Your task to perform on an android device: change the clock display to show seconds Image 0: 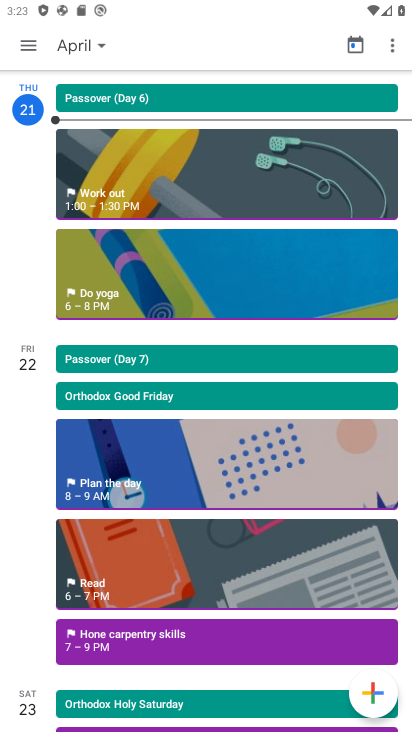
Step 0: press home button
Your task to perform on an android device: change the clock display to show seconds Image 1: 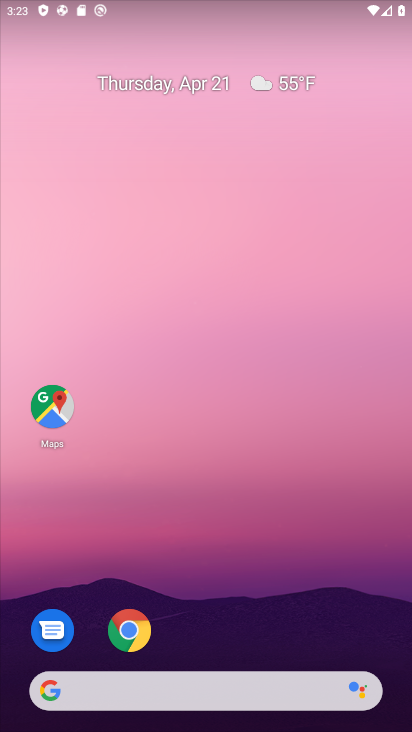
Step 1: drag from (348, 575) to (192, 36)
Your task to perform on an android device: change the clock display to show seconds Image 2: 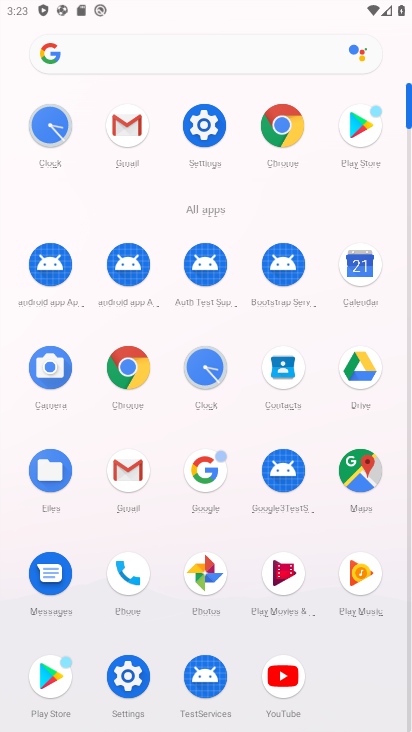
Step 2: click (41, 137)
Your task to perform on an android device: change the clock display to show seconds Image 3: 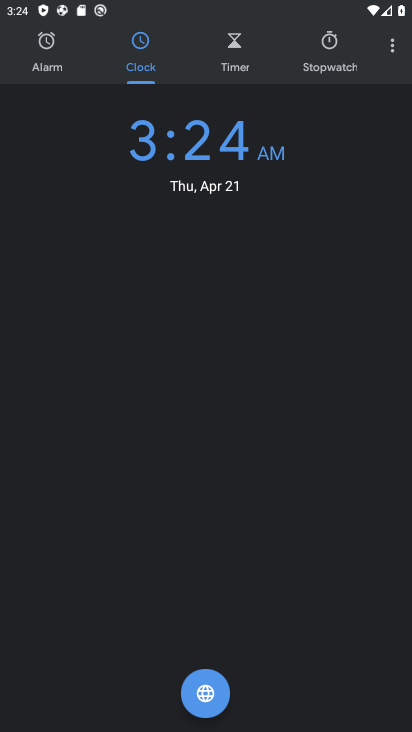
Step 3: click (393, 46)
Your task to perform on an android device: change the clock display to show seconds Image 4: 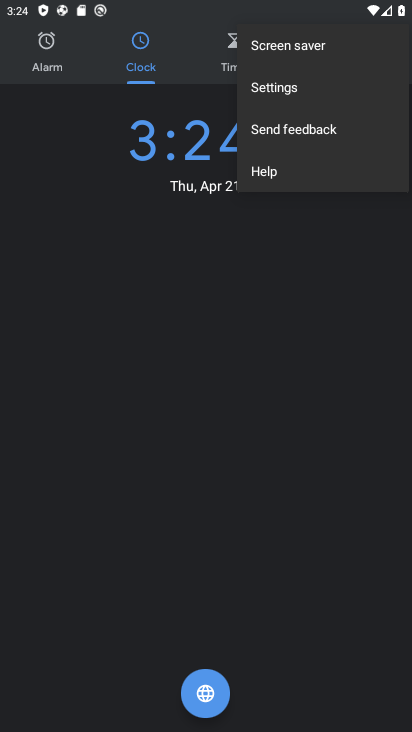
Step 4: click (292, 94)
Your task to perform on an android device: change the clock display to show seconds Image 5: 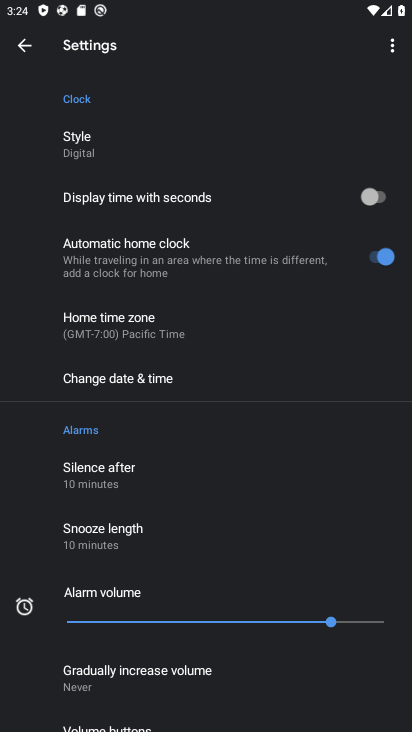
Step 5: click (375, 196)
Your task to perform on an android device: change the clock display to show seconds Image 6: 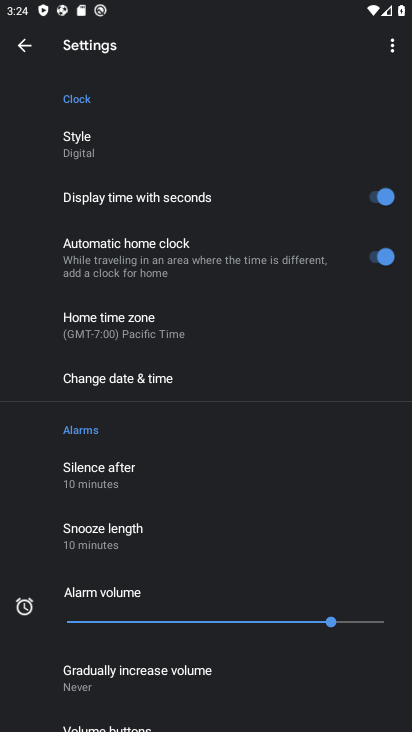
Step 6: task complete